Your task to perform on an android device: visit the assistant section in the google photos Image 0: 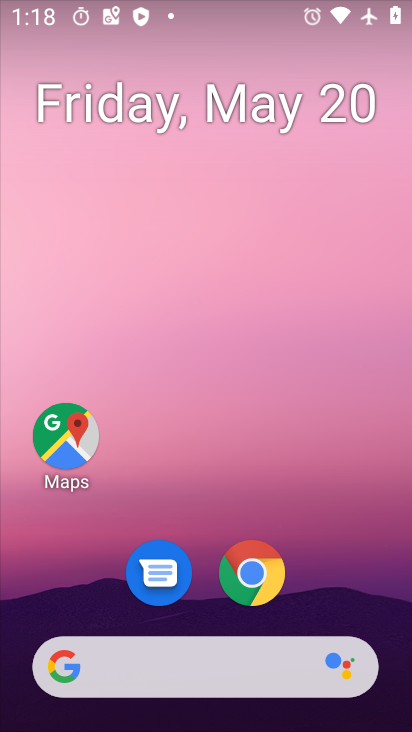
Step 0: drag from (342, 560) to (289, 136)
Your task to perform on an android device: visit the assistant section in the google photos Image 1: 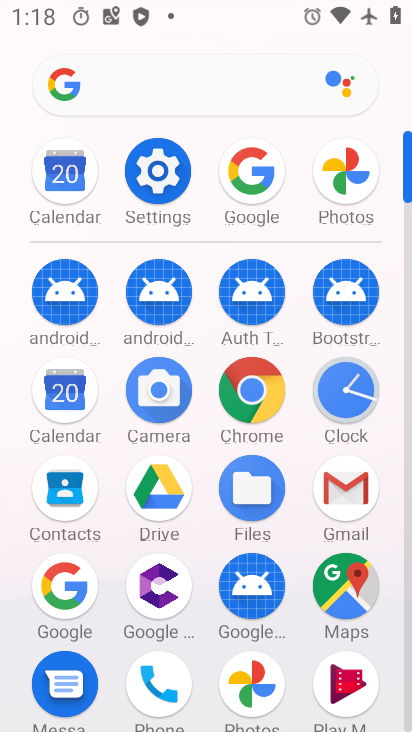
Step 1: click (340, 172)
Your task to perform on an android device: visit the assistant section in the google photos Image 2: 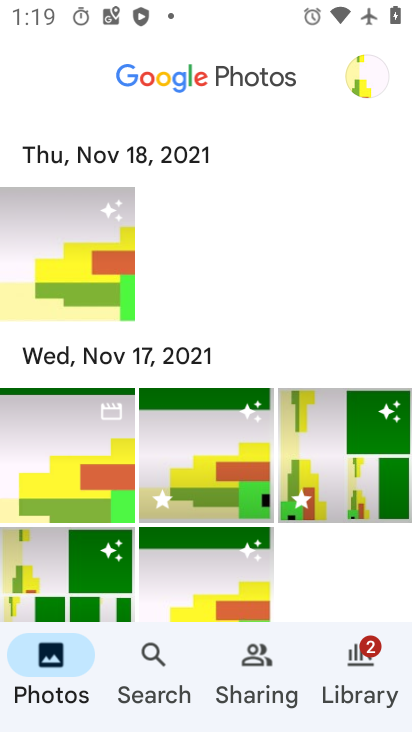
Step 2: task complete